Your task to perform on an android device: Open settings on Google Maps Image 0: 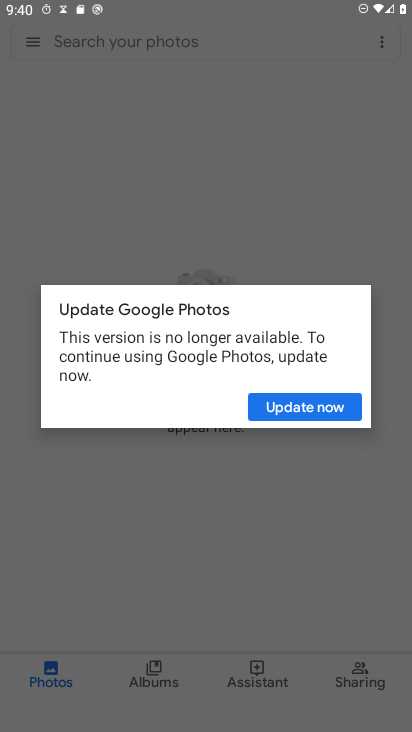
Step 0: press home button
Your task to perform on an android device: Open settings on Google Maps Image 1: 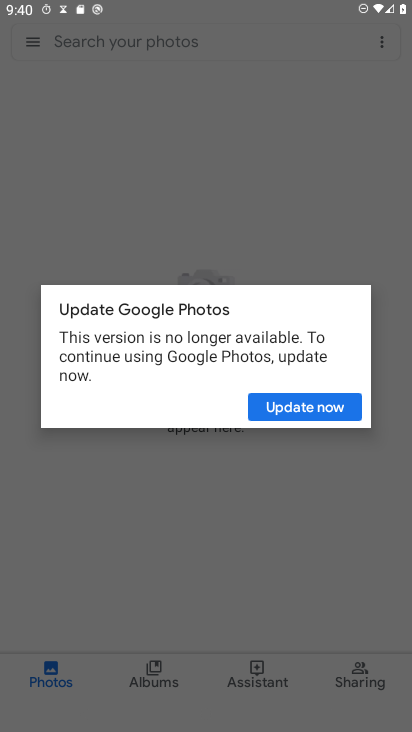
Step 1: press home button
Your task to perform on an android device: Open settings on Google Maps Image 2: 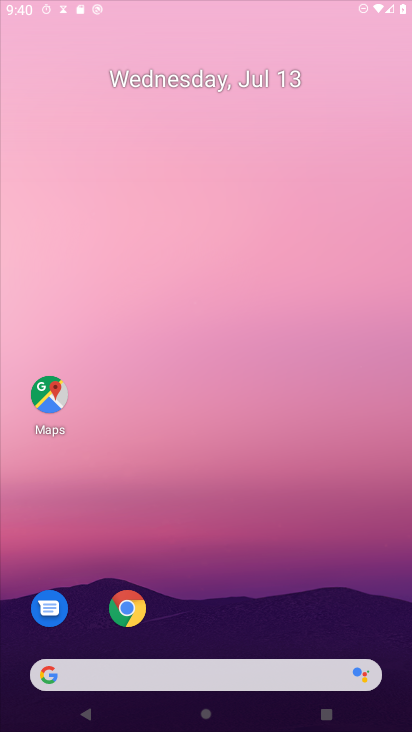
Step 2: press home button
Your task to perform on an android device: Open settings on Google Maps Image 3: 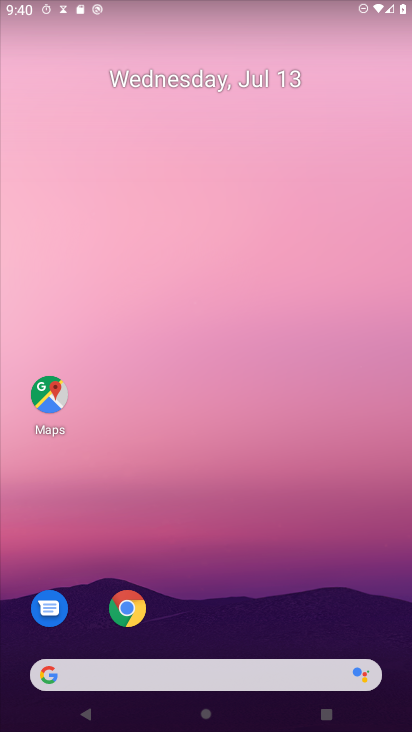
Step 3: drag from (216, 686) to (198, 0)
Your task to perform on an android device: Open settings on Google Maps Image 4: 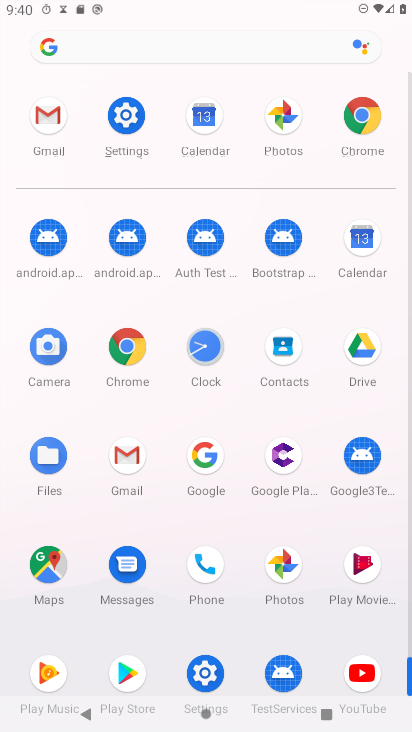
Step 4: click (50, 571)
Your task to perform on an android device: Open settings on Google Maps Image 5: 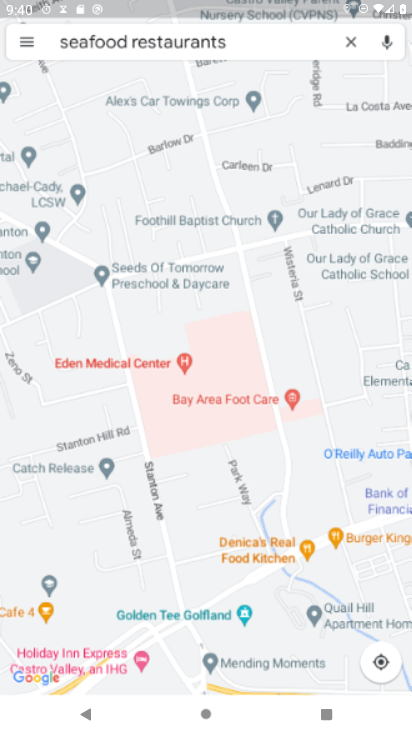
Step 5: click (50, 571)
Your task to perform on an android device: Open settings on Google Maps Image 6: 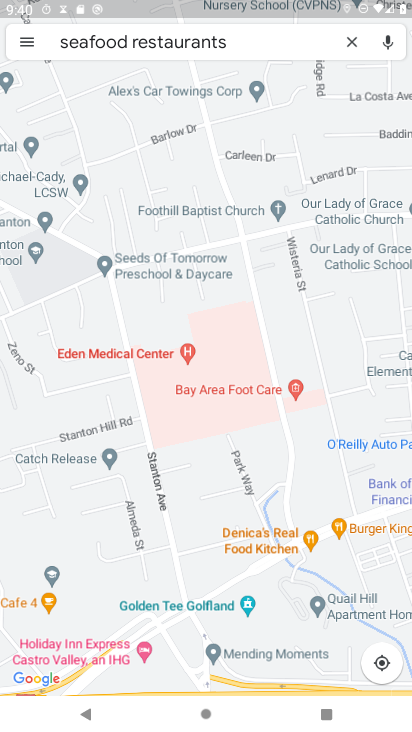
Step 6: task complete